Your task to perform on an android device: delete the emails in spam in the gmail app Image 0: 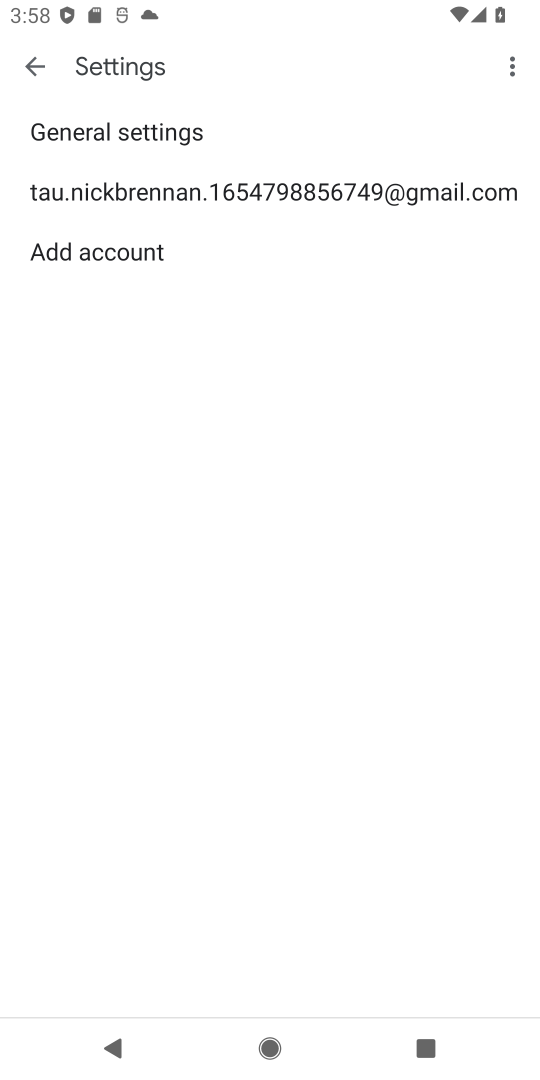
Step 0: press back button
Your task to perform on an android device: delete the emails in spam in the gmail app Image 1: 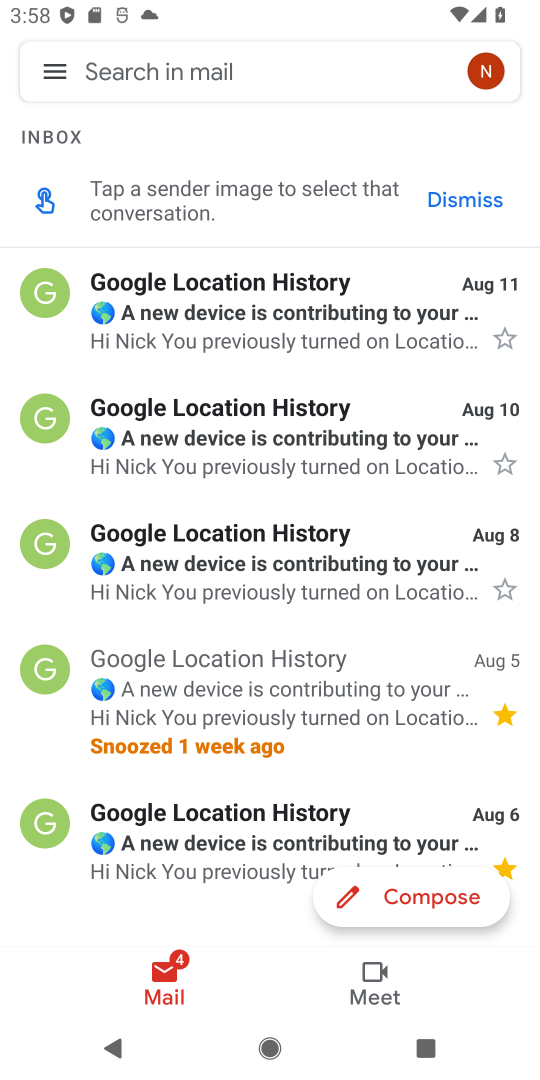
Step 1: press home button
Your task to perform on an android device: delete the emails in spam in the gmail app Image 2: 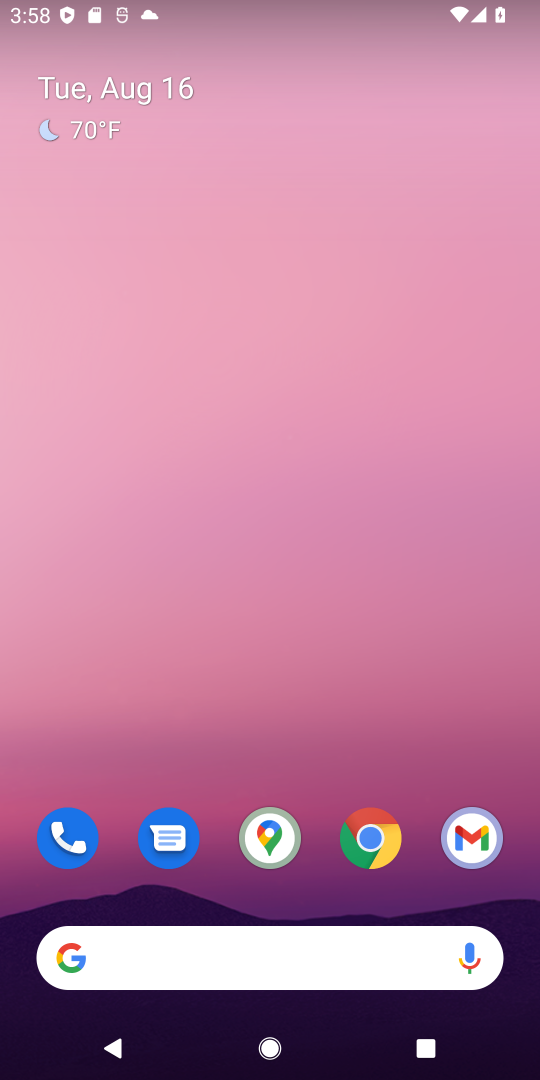
Step 2: drag from (262, 967) to (237, 1021)
Your task to perform on an android device: delete the emails in spam in the gmail app Image 3: 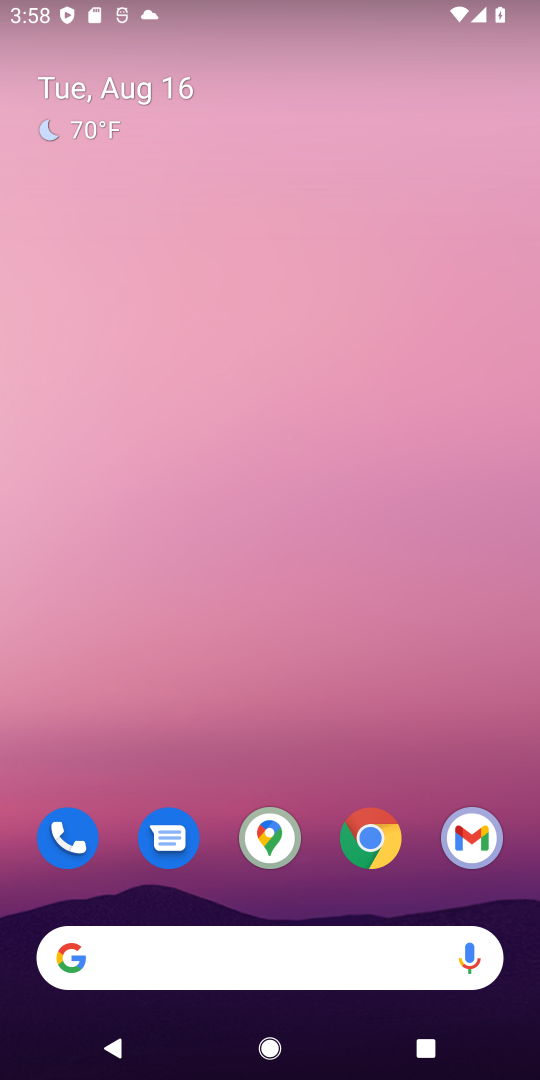
Step 3: click (485, 846)
Your task to perform on an android device: delete the emails in spam in the gmail app Image 4: 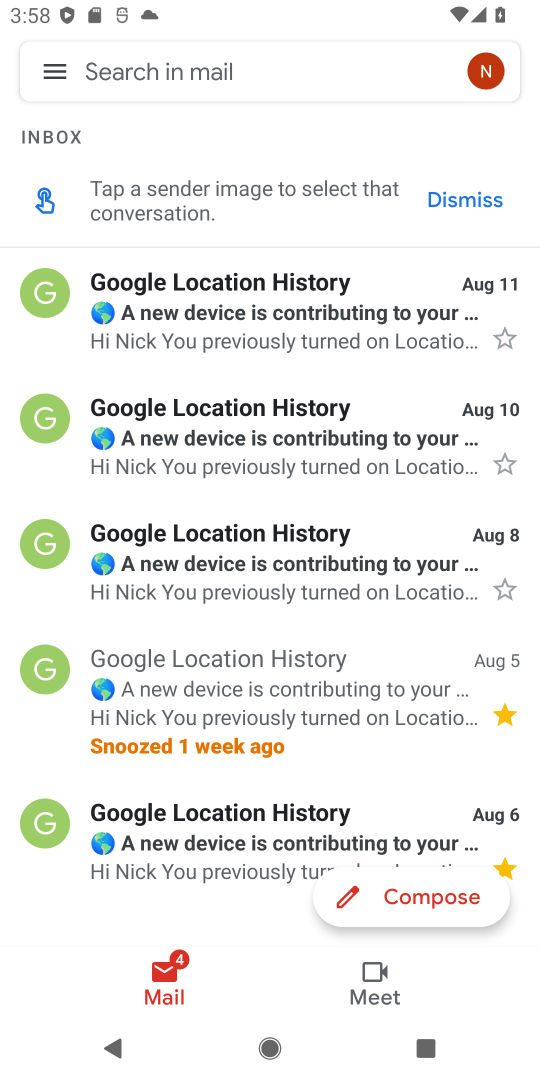
Step 4: click (60, 79)
Your task to perform on an android device: delete the emails in spam in the gmail app Image 5: 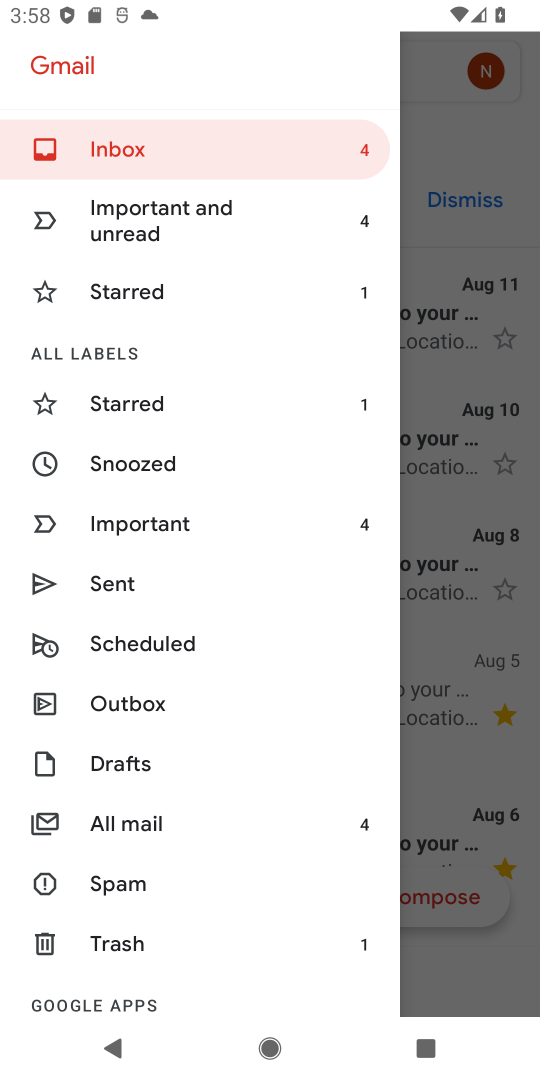
Step 5: click (160, 881)
Your task to perform on an android device: delete the emails in spam in the gmail app Image 6: 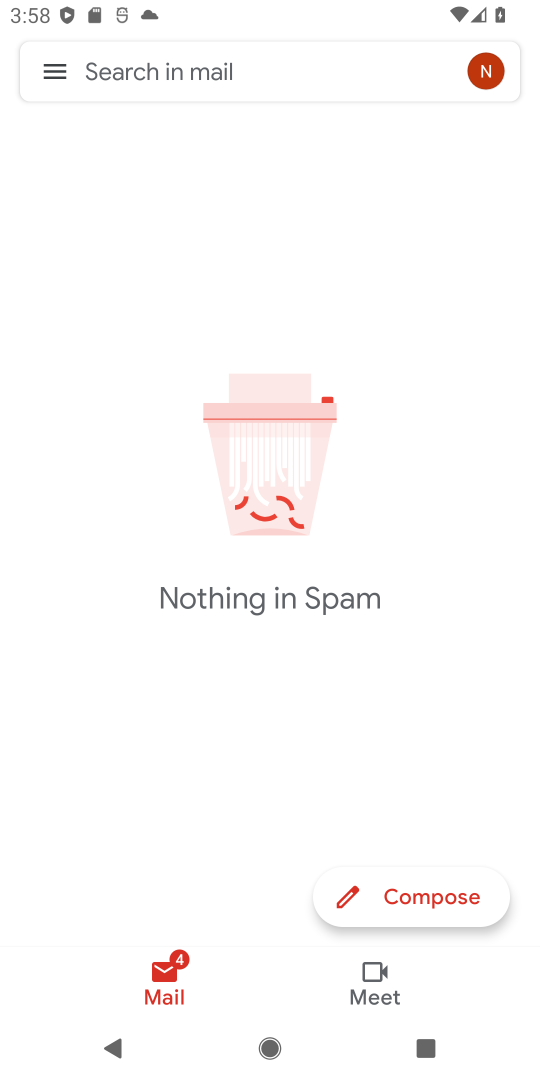
Step 6: task complete